Your task to perform on an android device: Go to CNN.com Image 0: 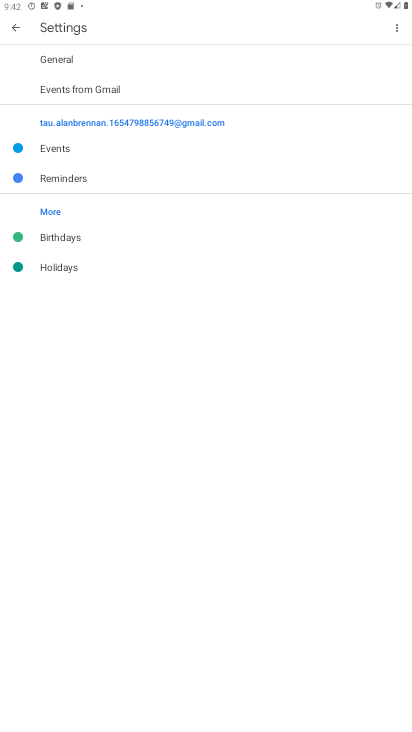
Step 0: press home button
Your task to perform on an android device: Go to CNN.com Image 1: 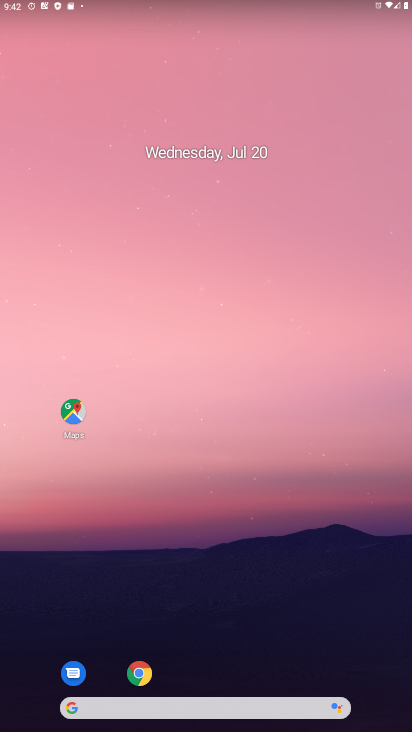
Step 1: drag from (236, 727) to (215, 212)
Your task to perform on an android device: Go to CNN.com Image 2: 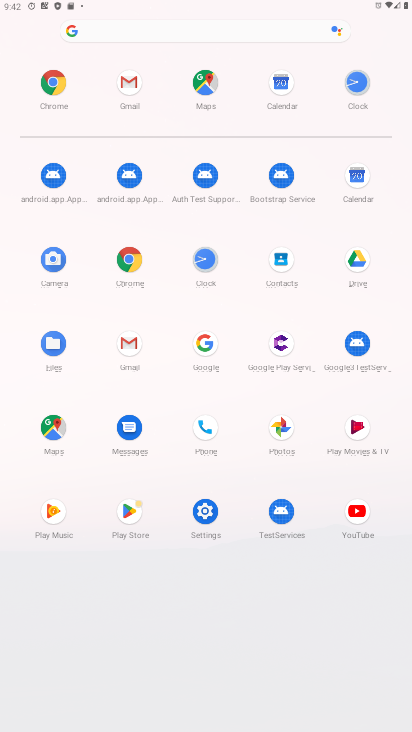
Step 2: click (46, 85)
Your task to perform on an android device: Go to CNN.com Image 3: 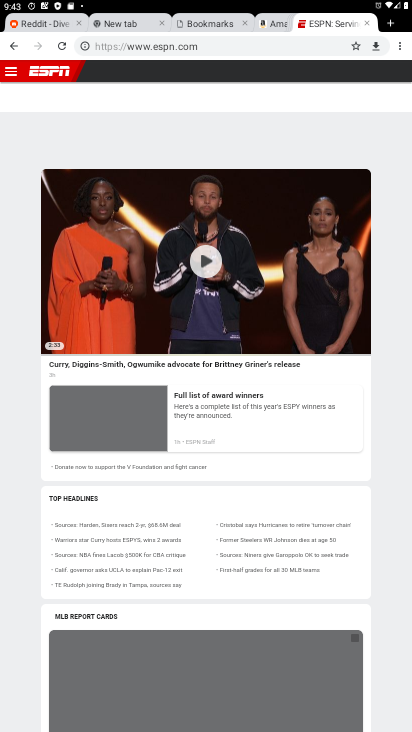
Step 3: click (399, 53)
Your task to perform on an android device: Go to CNN.com Image 4: 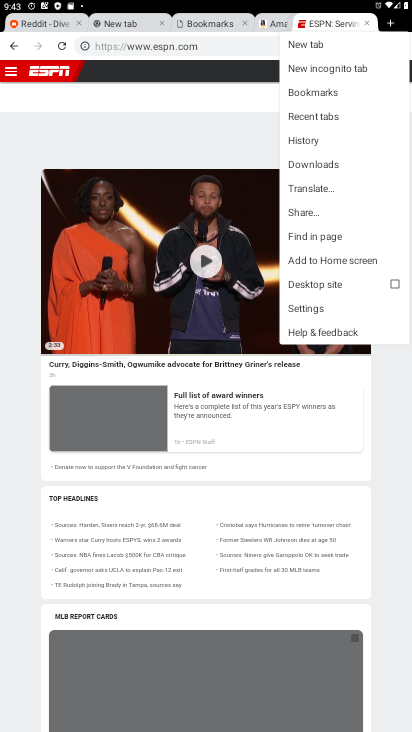
Step 4: click (301, 50)
Your task to perform on an android device: Go to CNN.com Image 5: 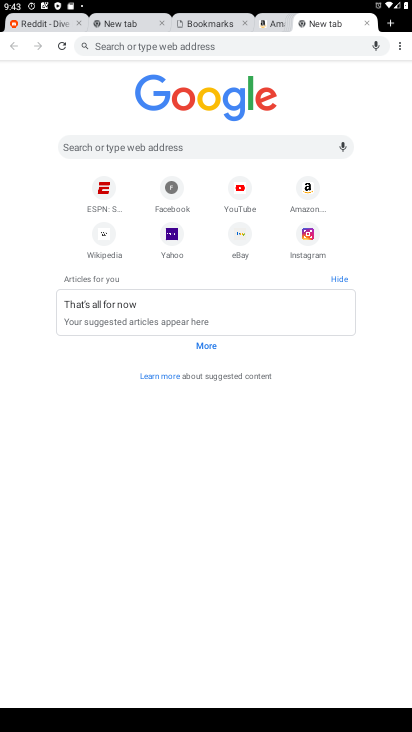
Step 5: click (188, 147)
Your task to perform on an android device: Go to CNN.com Image 6: 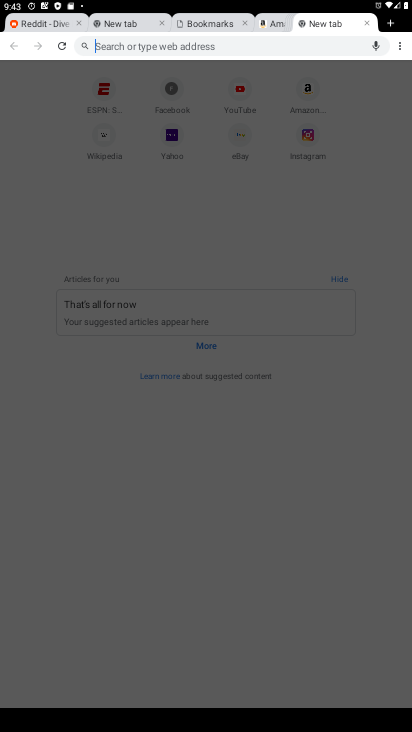
Step 6: type "CNN.com"
Your task to perform on an android device: Go to CNN.com Image 7: 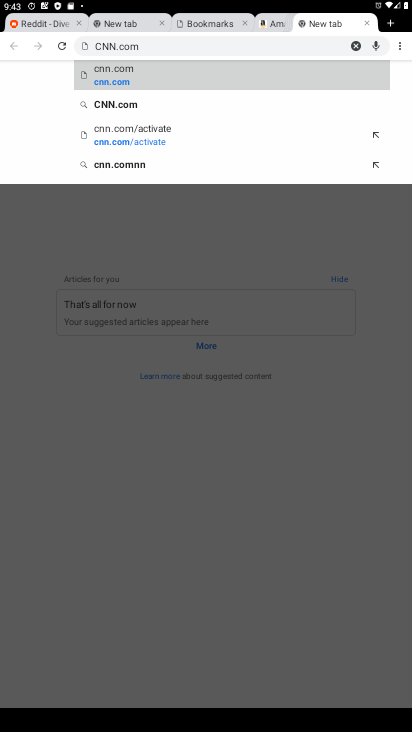
Step 7: click (132, 80)
Your task to perform on an android device: Go to CNN.com Image 8: 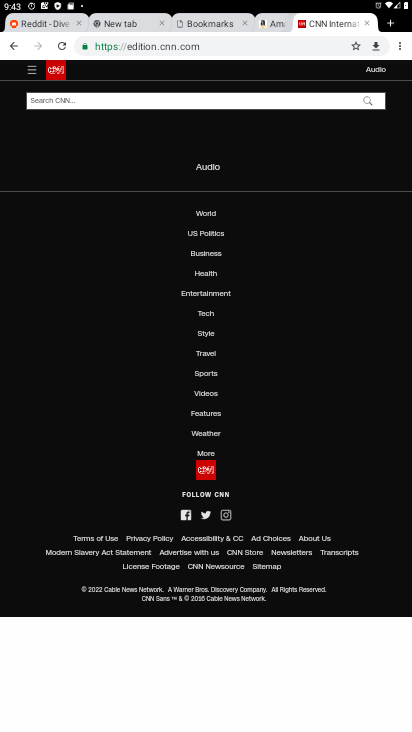
Step 8: task complete